Your task to perform on an android device: turn off improve location accuracy Image 0: 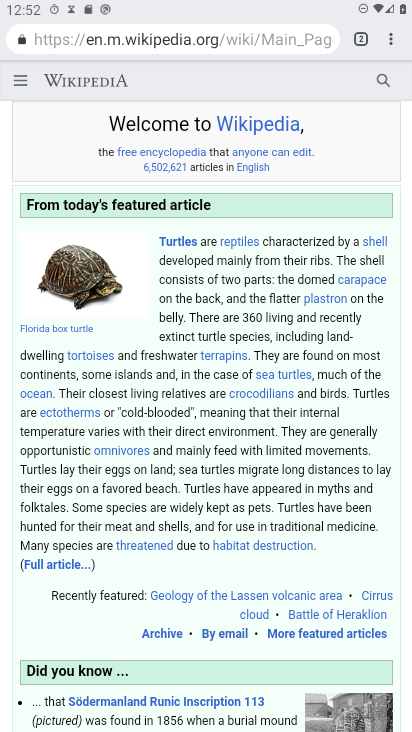
Step 0: press home button
Your task to perform on an android device: turn off improve location accuracy Image 1: 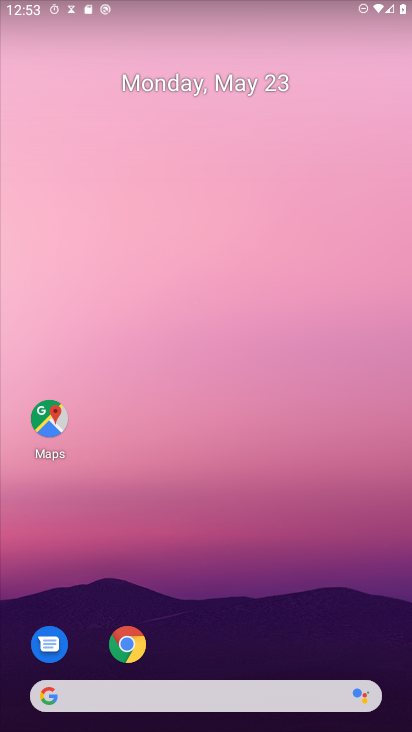
Step 1: drag from (249, 627) to (331, 41)
Your task to perform on an android device: turn off improve location accuracy Image 2: 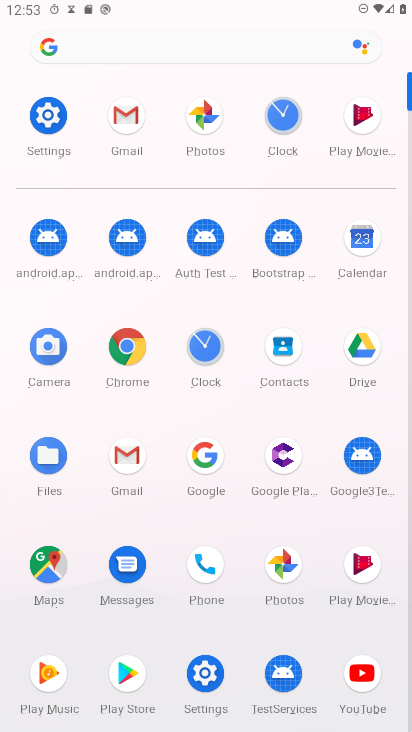
Step 2: click (49, 123)
Your task to perform on an android device: turn off improve location accuracy Image 3: 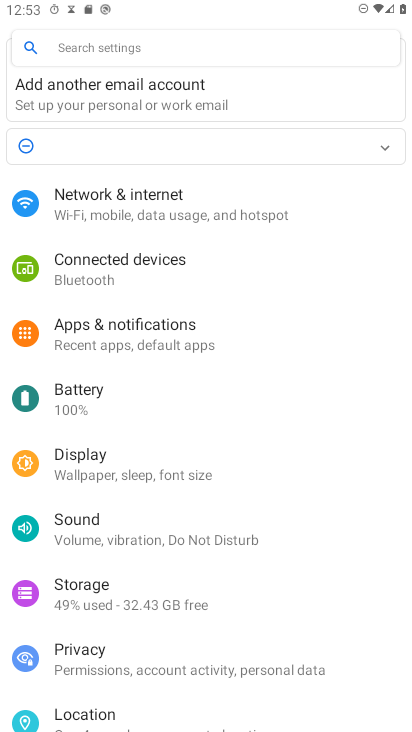
Step 3: click (151, 715)
Your task to perform on an android device: turn off improve location accuracy Image 4: 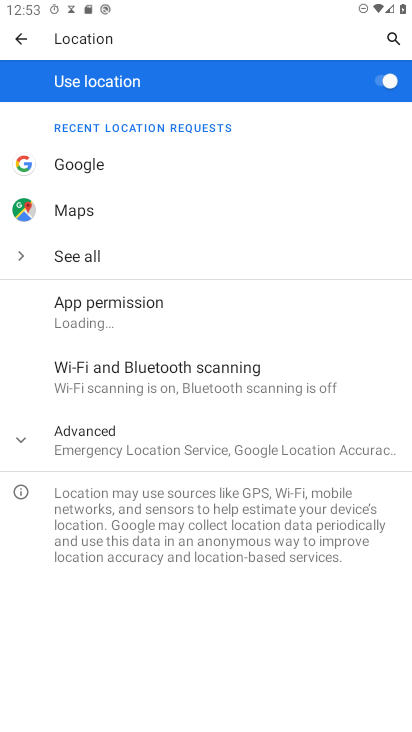
Step 4: click (300, 445)
Your task to perform on an android device: turn off improve location accuracy Image 5: 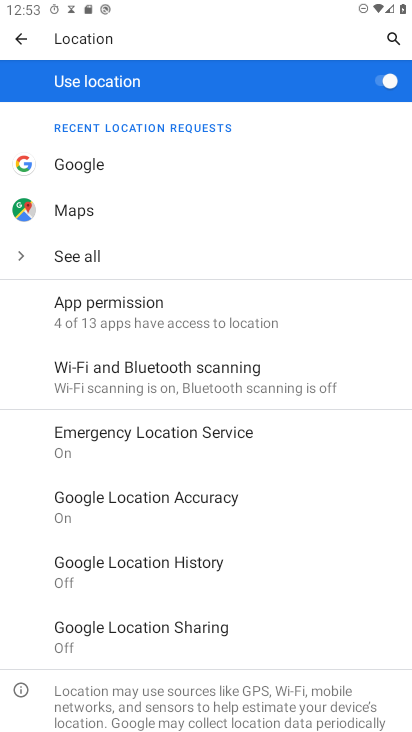
Step 5: click (155, 506)
Your task to perform on an android device: turn off improve location accuracy Image 6: 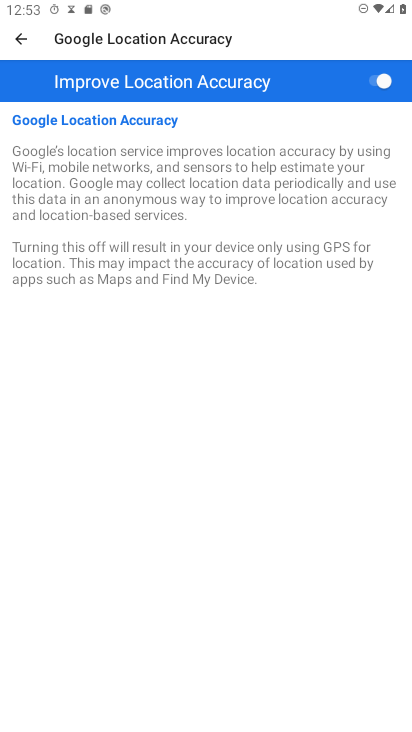
Step 6: click (378, 79)
Your task to perform on an android device: turn off improve location accuracy Image 7: 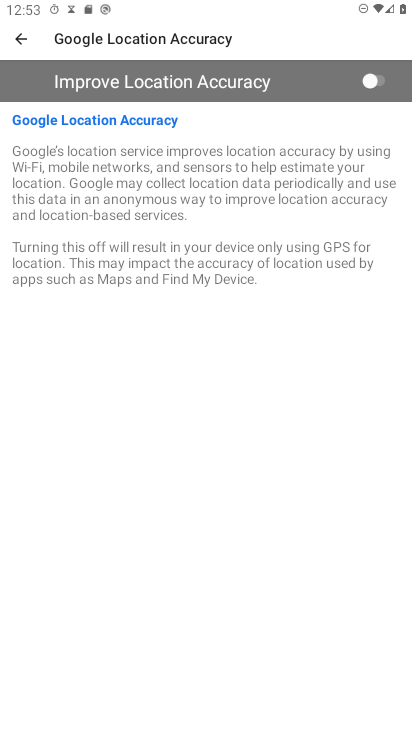
Step 7: task complete